Your task to perform on an android device: Go to settings Image 0: 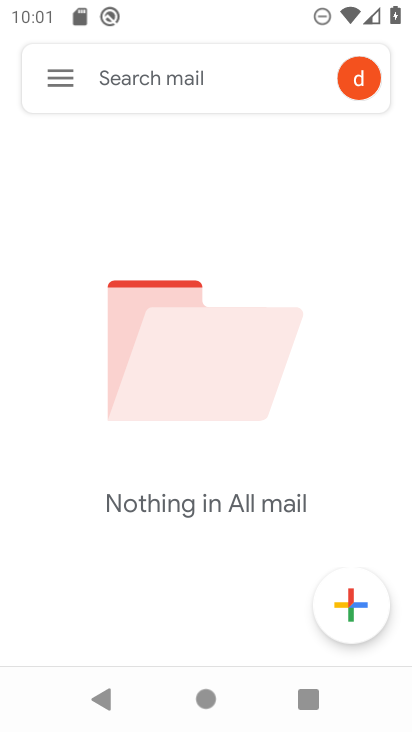
Step 0: press home button
Your task to perform on an android device: Go to settings Image 1: 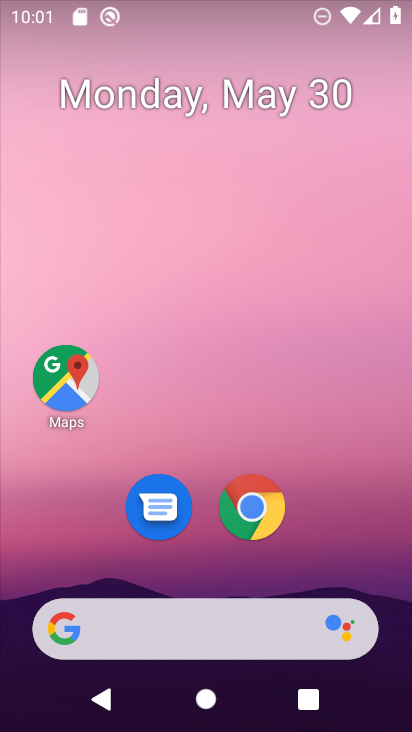
Step 1: drag from (145, 642) to (159, 46)
Your task to perform on an android device: Go to settings Image 2: 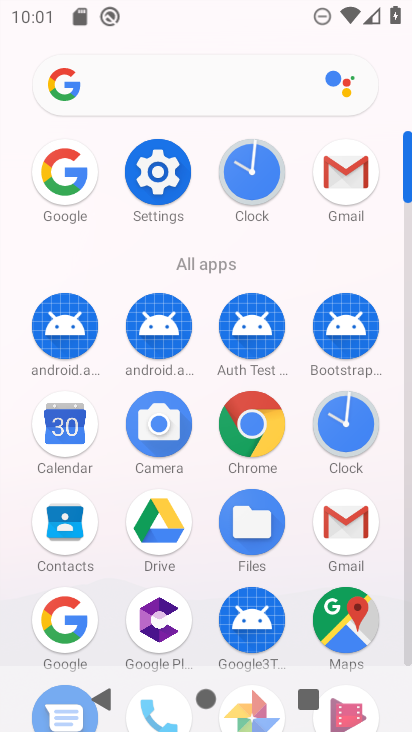
Step 2: click (151, 185)
Your task to perform on an android device: Go to settings Image 3: 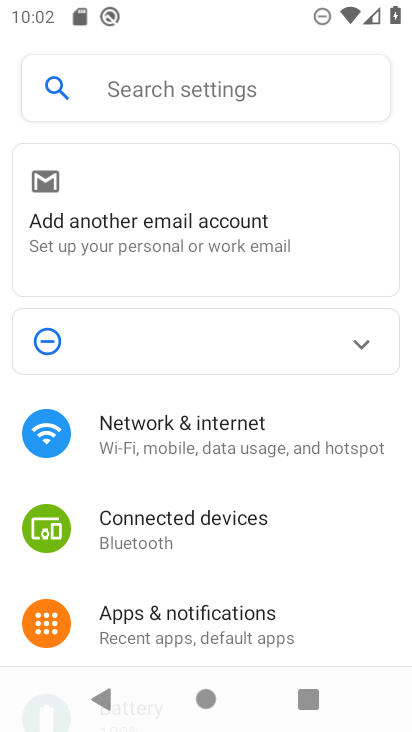
Step 3: task complete